Your task to perform on an android device: Open CNN.com Image 0: 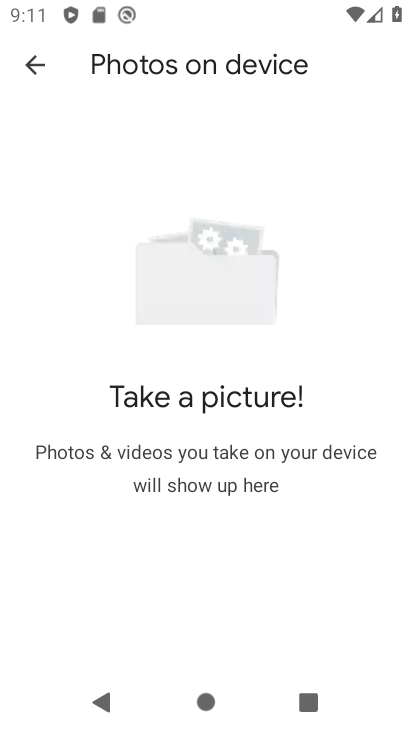
Step 0: press home button
Your task to perform on an android device: Open CNN.com Image 1: 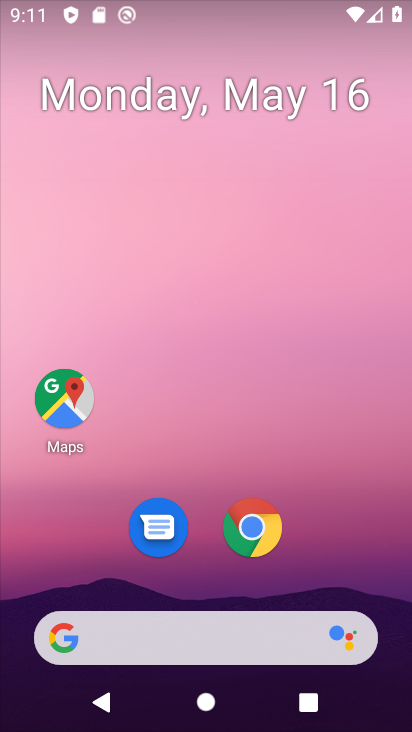
Step 1: click (262, 539)
Your task to perform on an android device: Open CNN.com Image 2: 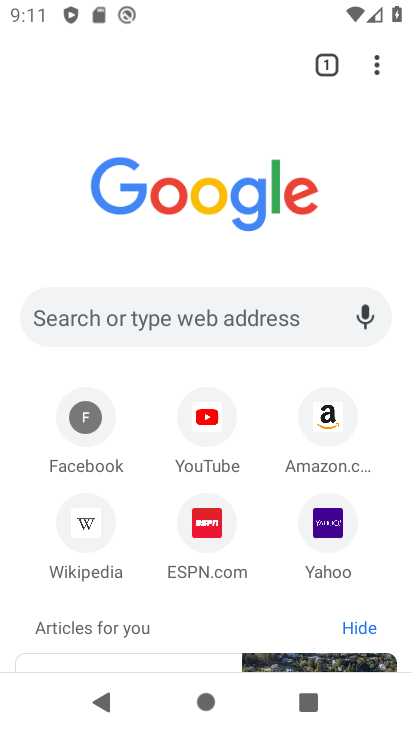
Step 2: click (102, 316)
Your task to perform on an android device: Open CNN.com Image 3: 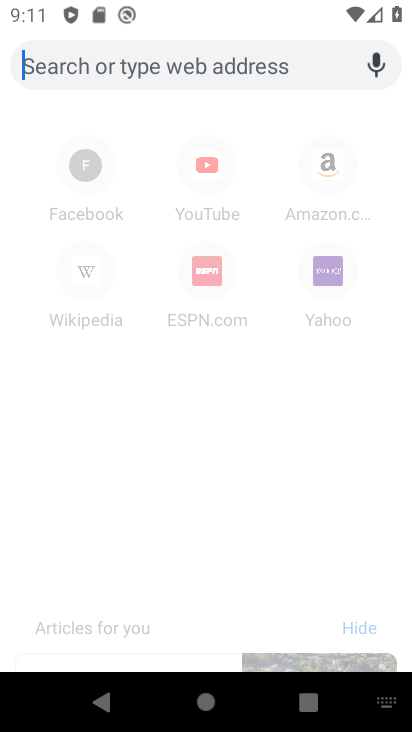
Step 3: type "cnn.com"
Your task to perform on an android device: Open CNN.com Image 4: 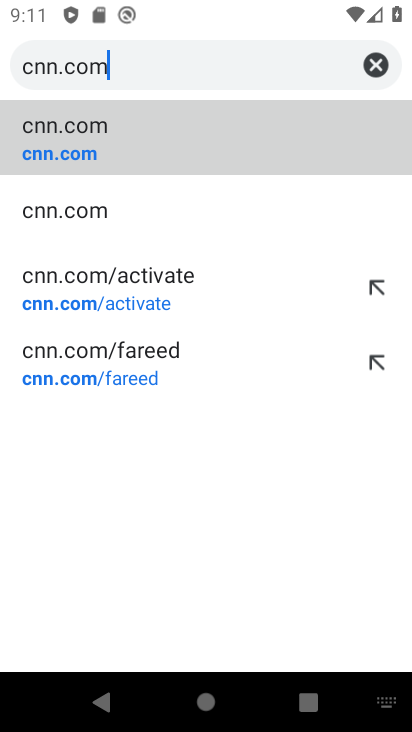
Step 4: click (48, 129)
Your task to perform on an android device: Open CNN.com Image 5: 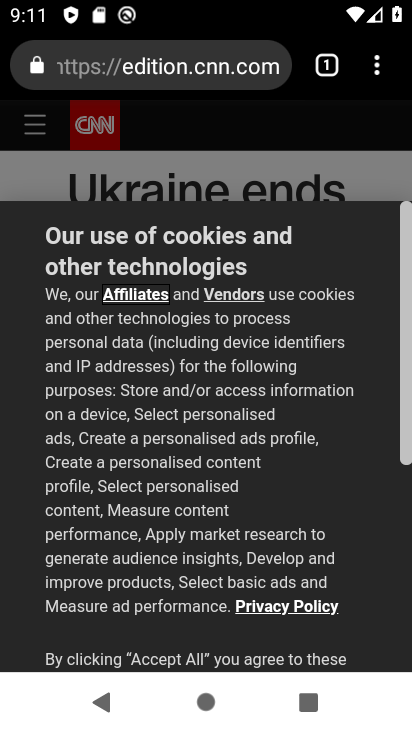
Step 5: task complete